Your task to perform on an android device: Go to internet settings Image 0: 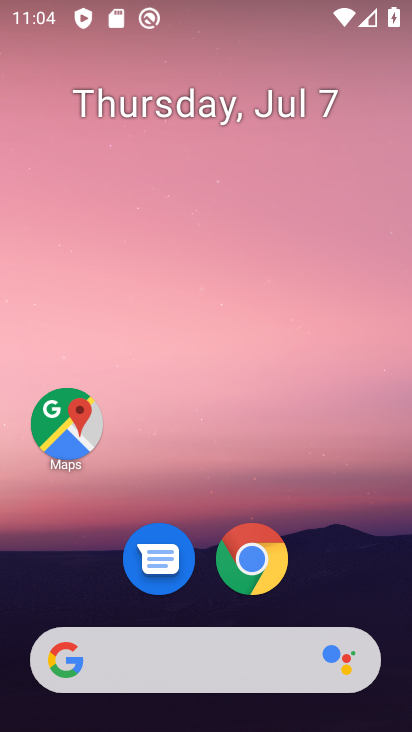
Step 0: drag from (359, 554) to (342, 93)
Your task to perform on an android device: Go to internet settings Image 1: 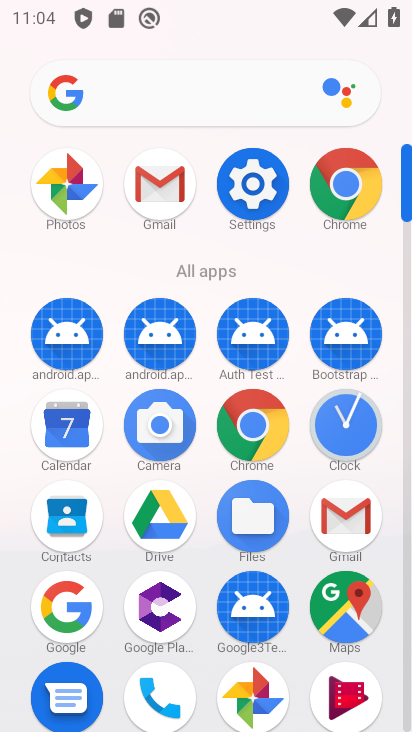
Step 1: click (247, 187)
Your task to perform on an android device: Go to internet settings Image 2: 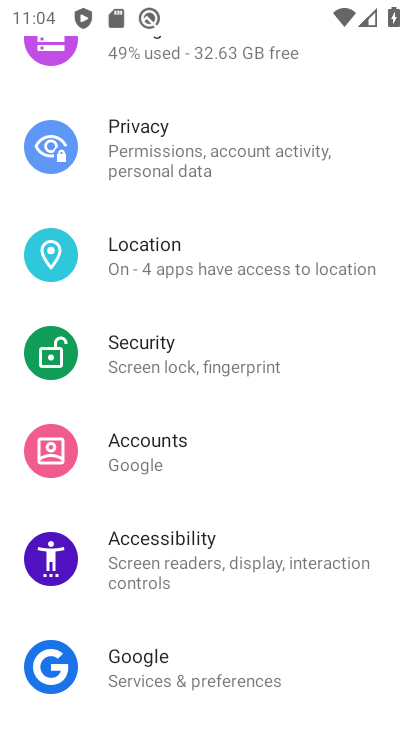
Step 2: drag from (376, 173) to (377, 319)
Your task to perform on an android device: Go to internet settings Image 3: 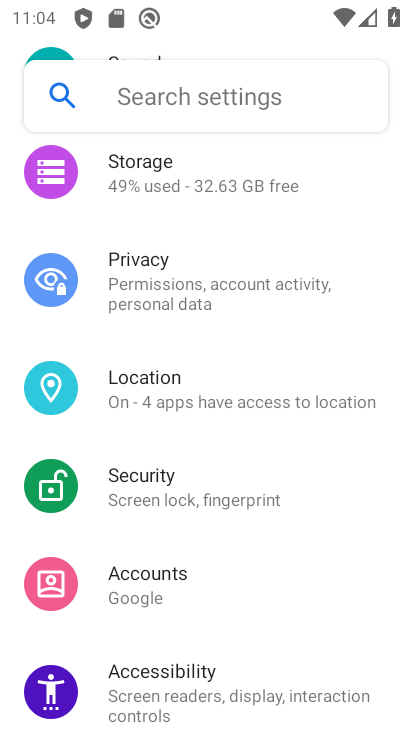
Step 3: drag from (357, 186) to (378, 363)
Your task to perform on an android device: Go to internet settings Image 4: 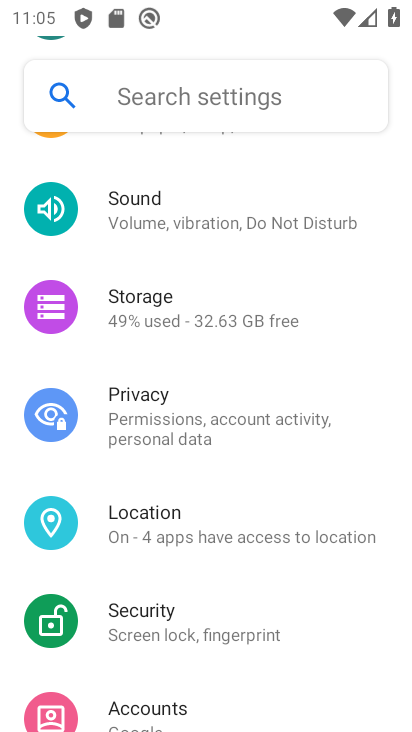
Step 4: drag from (375, 183) to (376, 354)
Your task to perform on an android device: Go to internet settings Image 5: 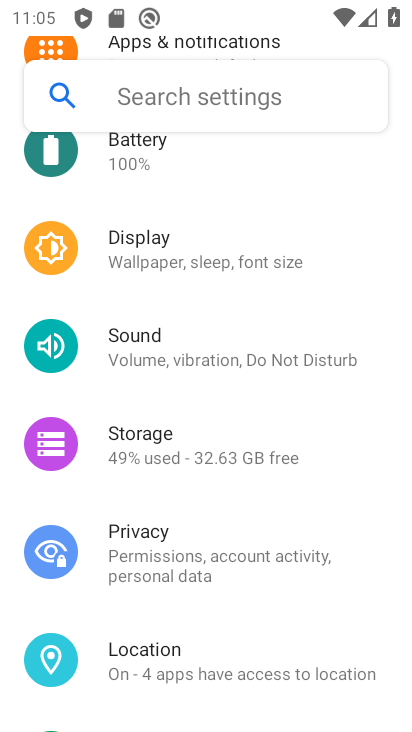
Step 5: drag from (368, 198) to (369, 369)
Your task to perform on an android device: Go to internet settings Image 6: 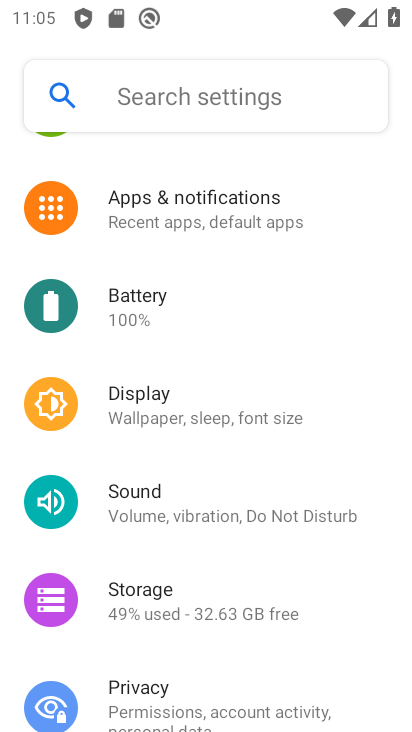
Step 6: drag from (357, 187) to (359, 389)
Your task to perform on an android device: Go to internet settings Image 7: 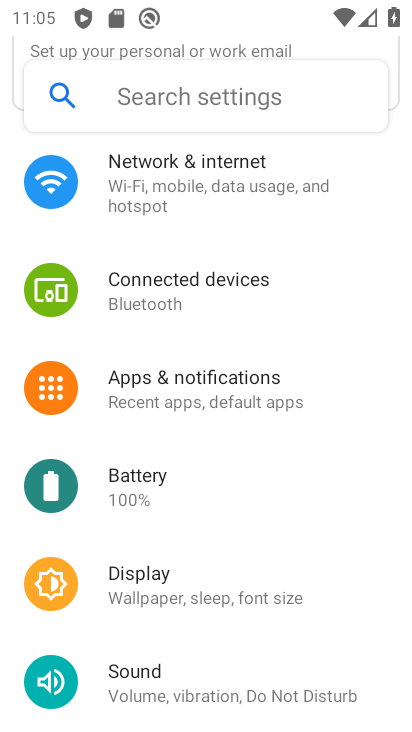
Step 7: drag from (338, 226) to (375, 437)
Your task to perform on an android device: Go to internet settings Image 8: 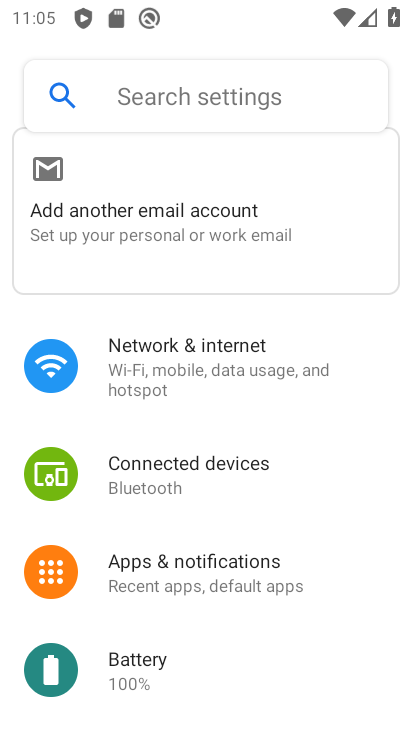
Step 8: click (254, 354)
Your task to perform on an android device: Go to internet settings Image 9: 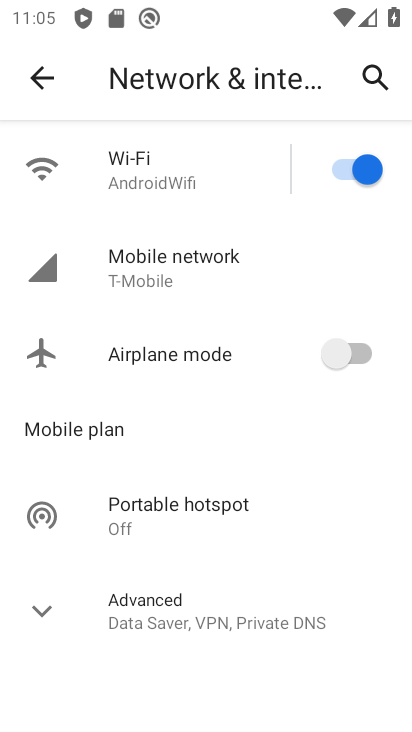
Step 9: task complete